Your task to perform on an android device: toggle location history Image 0: 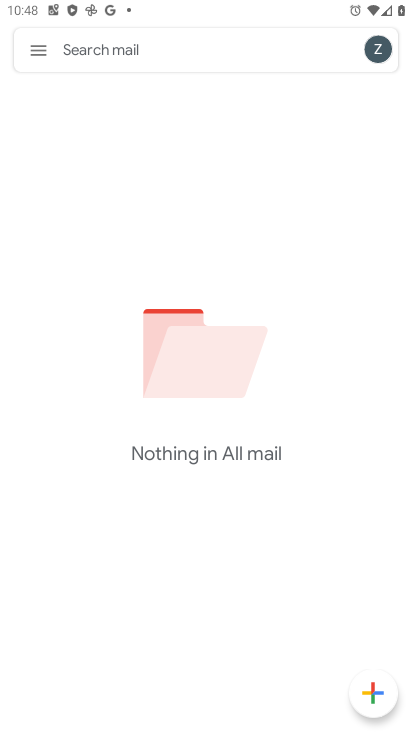
Step 0: press home button
Your task to perform on an android device: toggle location history Image 1: 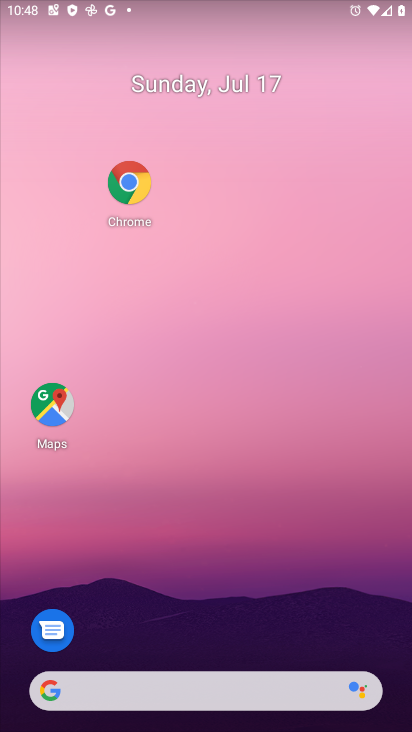
Step 1: drag from (208, 594) to (207, 109)
Your task to perform on an android device: toggle location history Image 2: 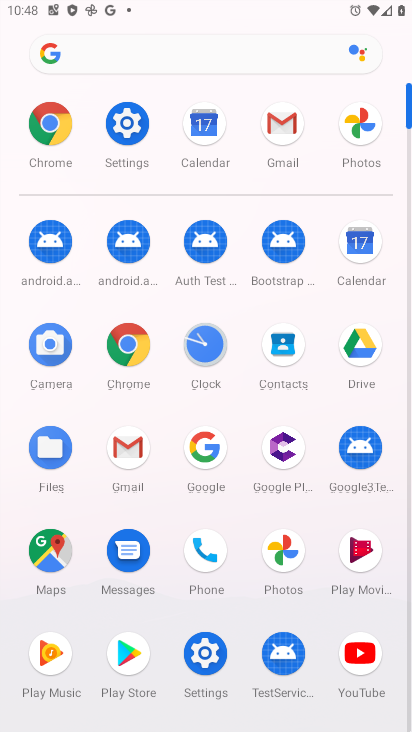
Step 2: click (125, 115)
Your task to perform on an android device: toggle location history Image 3: 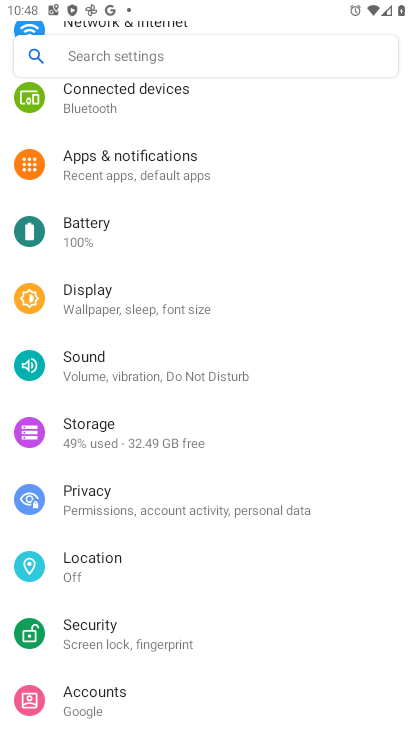
Step 3: click (69, 556)
Your task to perform on an android device: toggle location history Image 4: 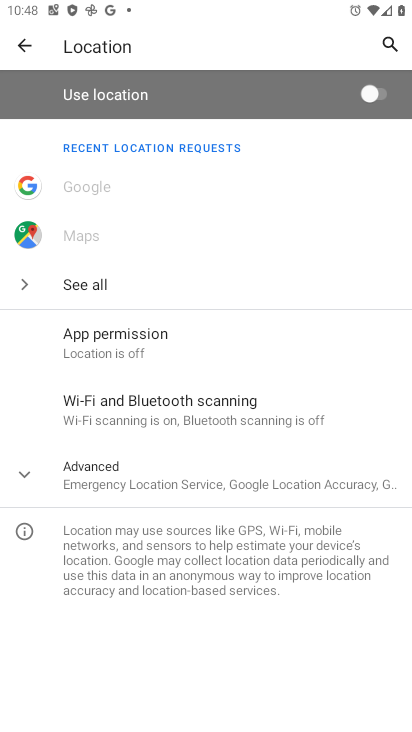
Step 4: click (17, 561)
Your task to perform on an android device: toggle location history Image 5: 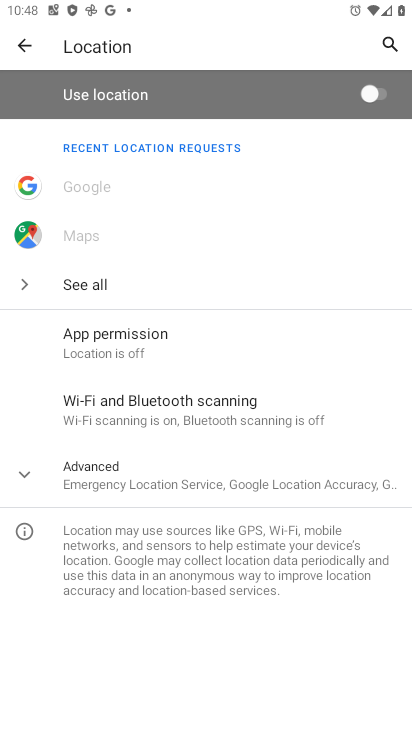
Step 5: click (377, 109)
Your task to perform on an android device: toggle location history Image 6: 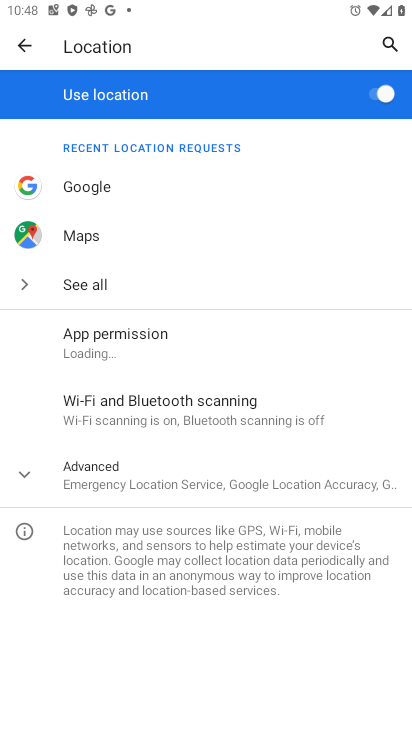
Step 6: task complete